Your task to perform on an android device: turn smart compose on in the gmail app Image 0: 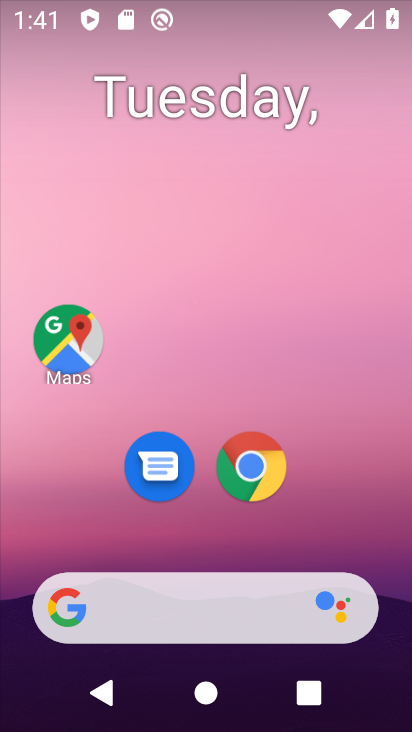
Step 0: drag from (378, 557) to (292, 43)
Your task to perform on an android device: turn smart compose on in the gmail app Image 1: 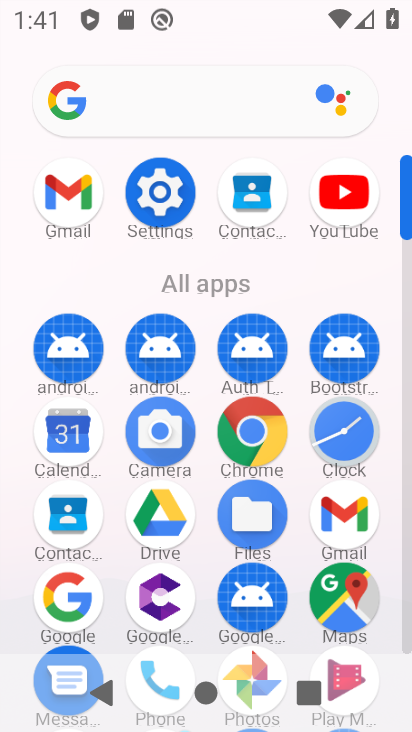
Step 1: click (331, 506)
Your task to perform on an android device: turn smart compose on in the gmail app Image 2: 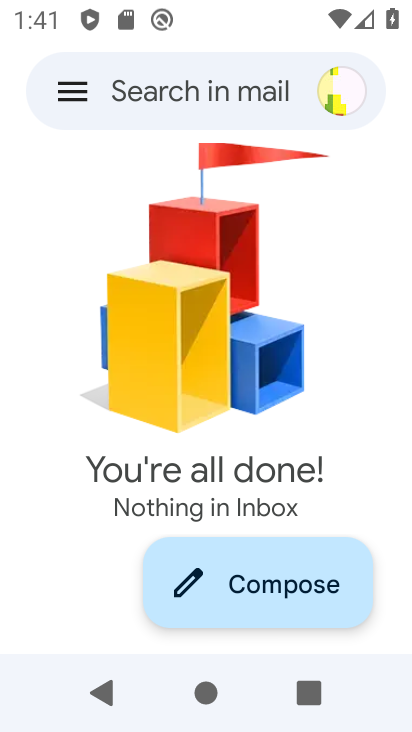
Step 2: task complete